Your task to perform on an android device: Clear all items from cart on bestbuy. Search for usb-a on bestbuy, select the first entry, add it to the cart, then select checkout. Image 0: 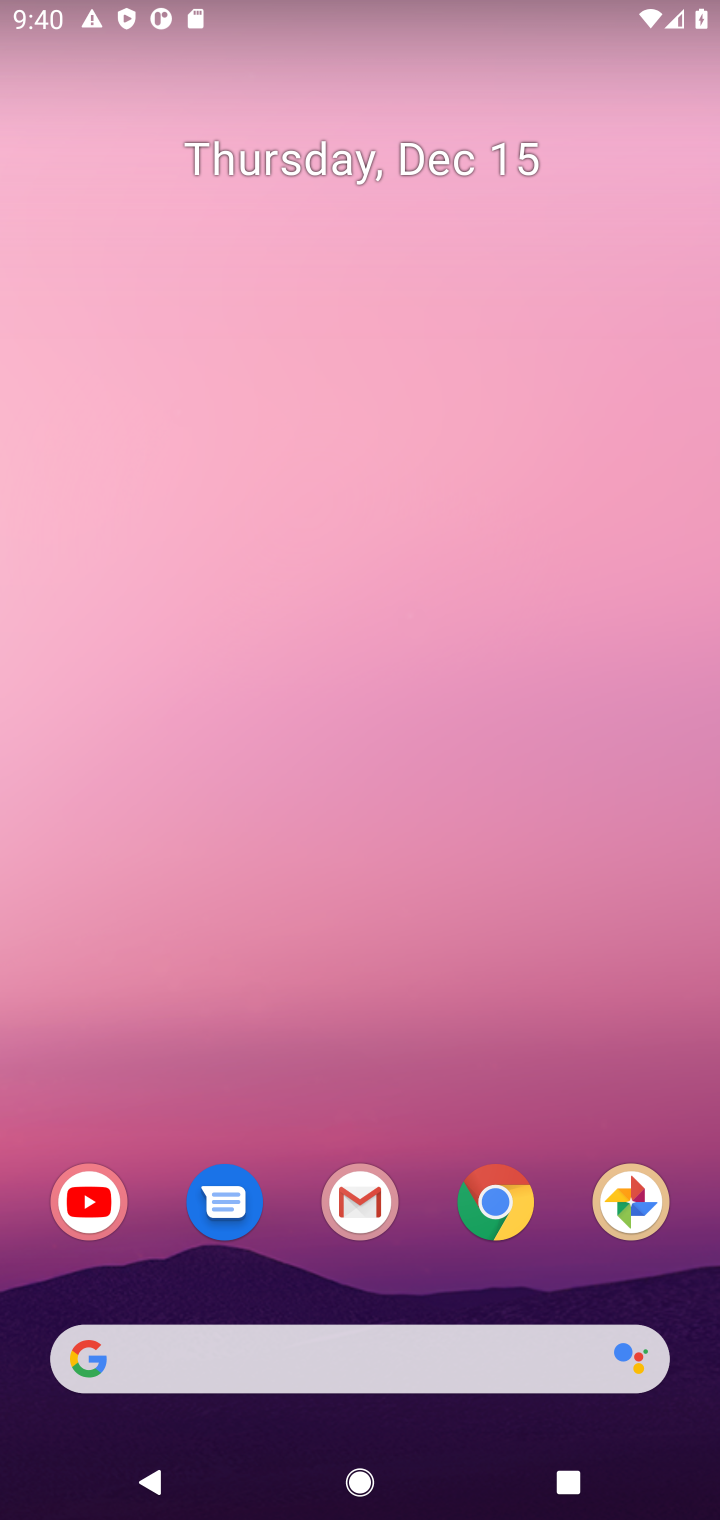
Step 0: click (497, 1207)
Your task to perform on an android device: Clear all items from cart on bestbuy. Search for usb-a on bestbuy, select the first entry, add it to the cart, then select checkout. Image 1: 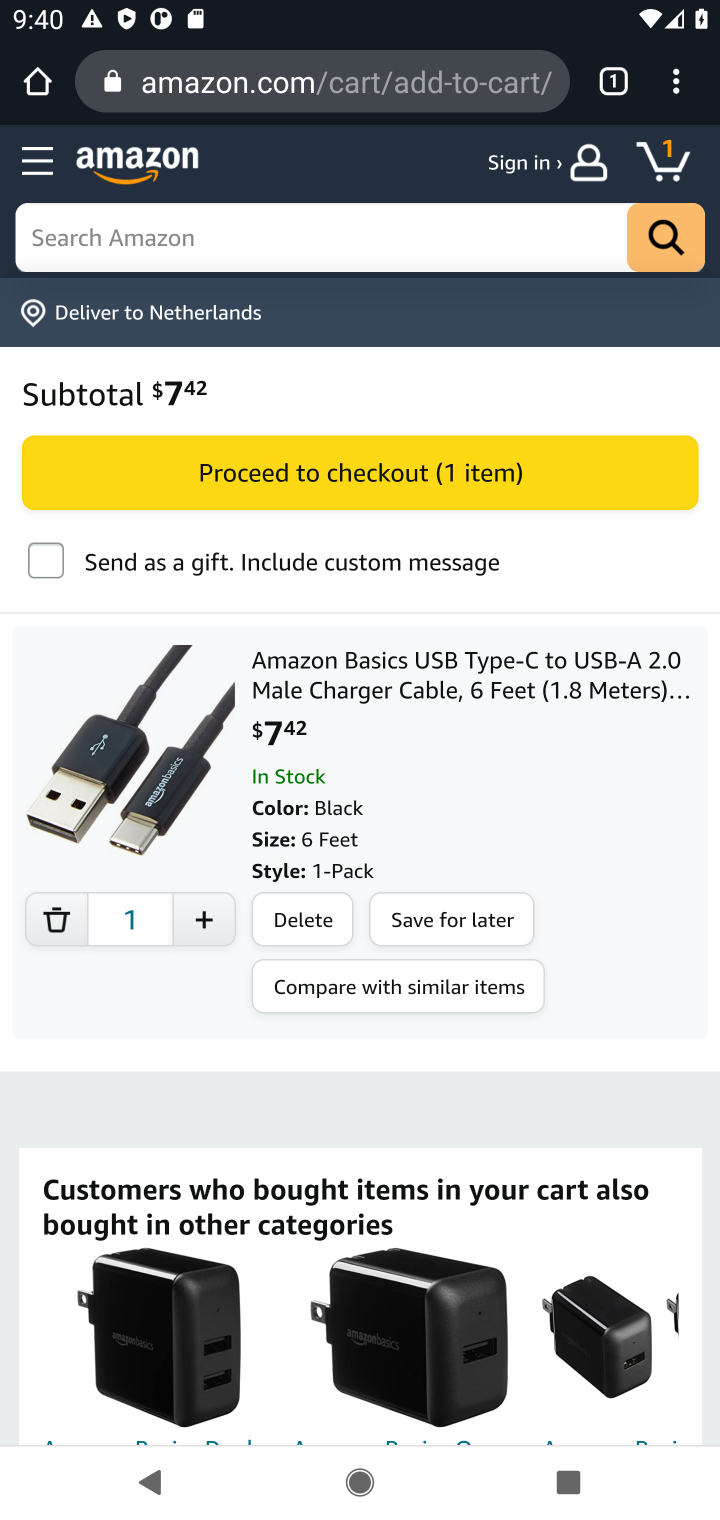
Step 1: click (270, 73)
Your task to perform on an android device: Clear all items from cart on bestbuy. Search for usb-a on bestbuy, select the first entry, add it to the cart, then select checkout. Image 2: 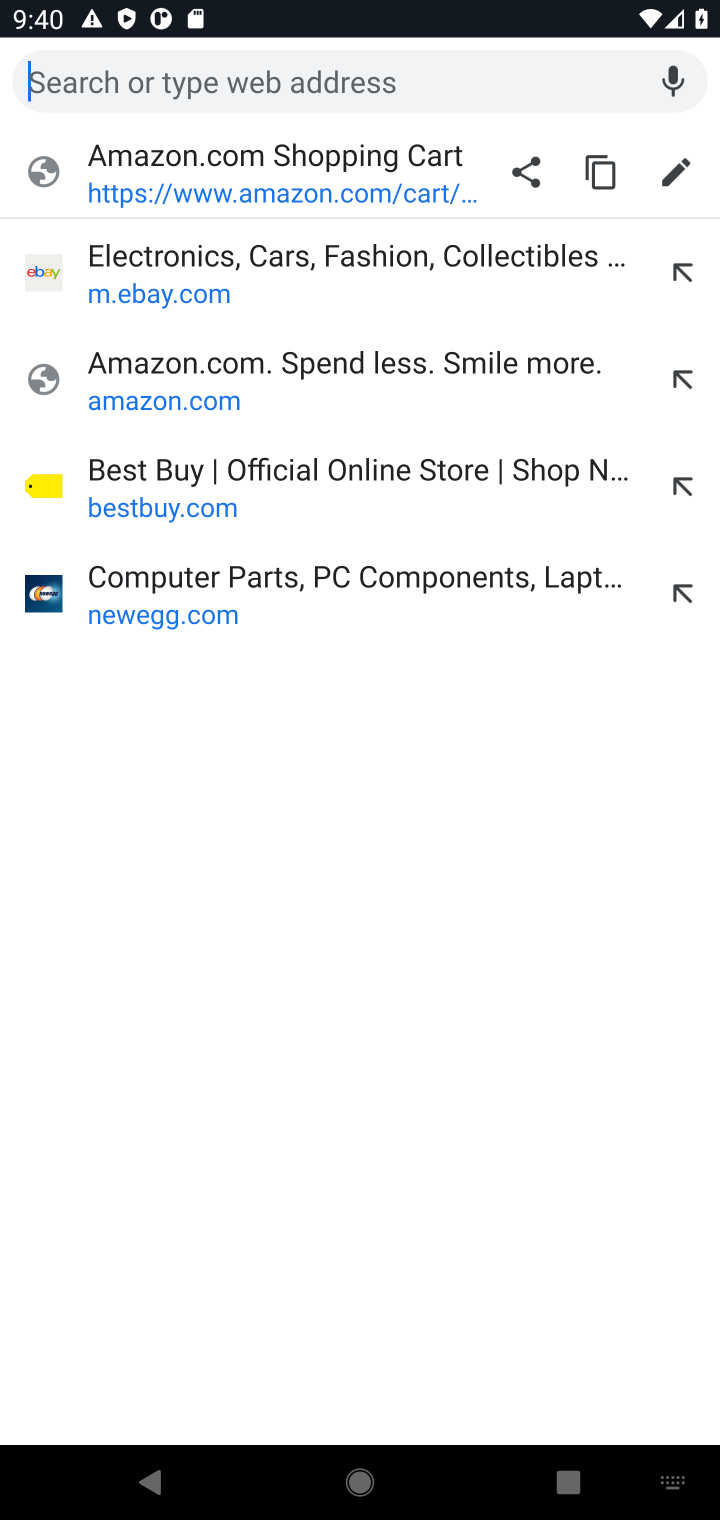
Step 2: click (136, 495)
Your task to perform on an android device: Clear all items from cart on bestbuy. Search for usb-a on bestbuy, select the first entry, add it to the cart, then select checkout. Image 3: 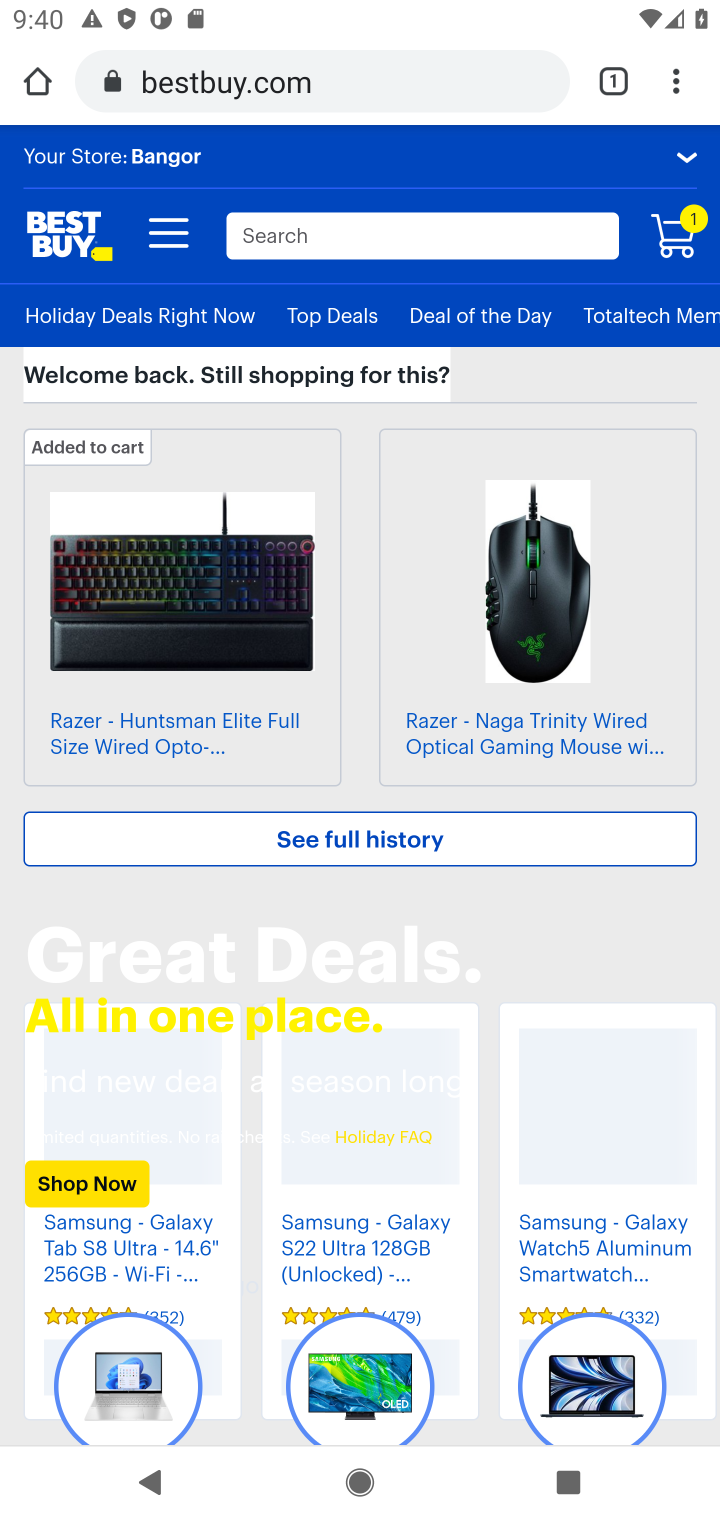
Step 3: click (680, 237)
Your task to perform on an android device: Clear all items from cart on bestbuy. Search for usb-a on bestbuy, select the first entry, add it to the cart, then select checkout. Image 4: 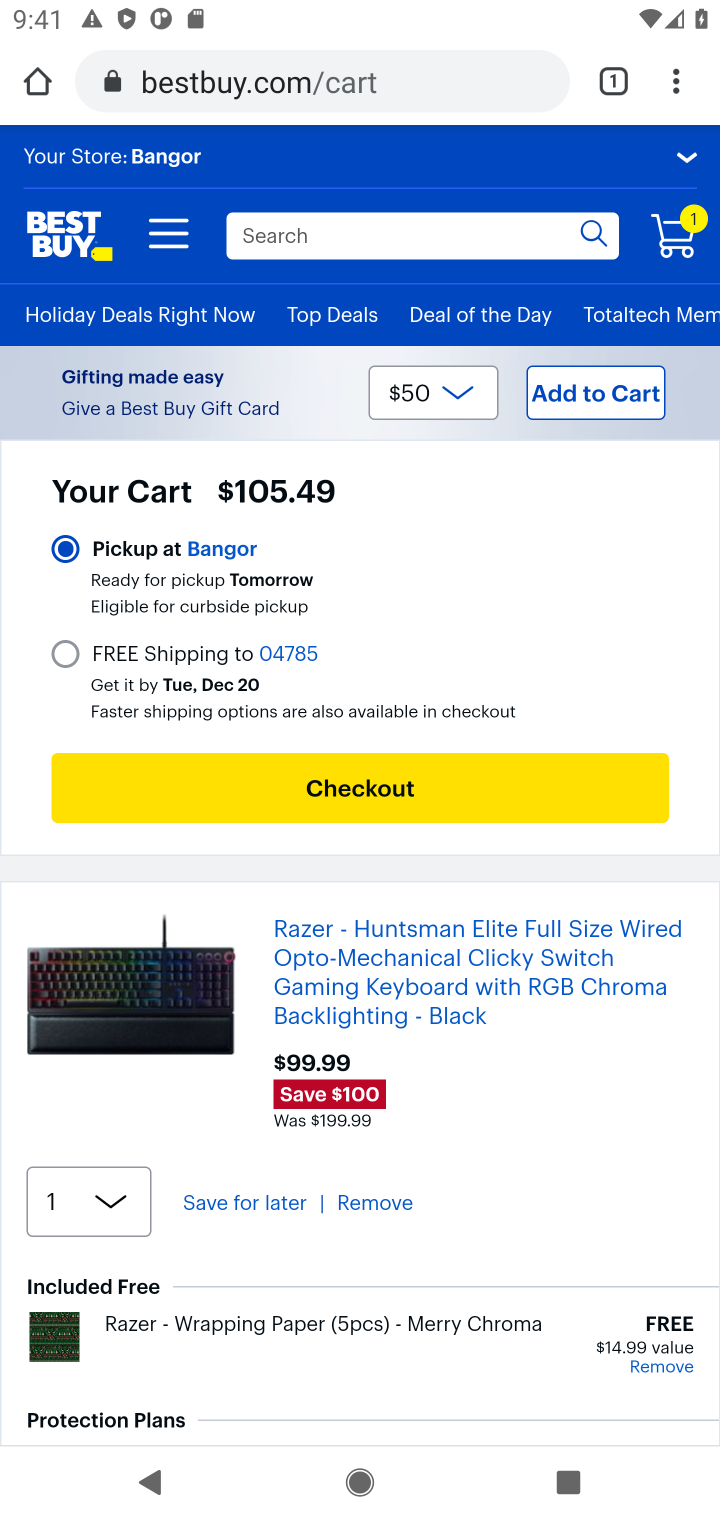
Step 4: click (387, 1200)
Your task to perform on an android device: Clear all items from cart on bestbuy. Search for usb-a on bestbuy, select the first entry, add it to the cart, then select checkout. Image 5: 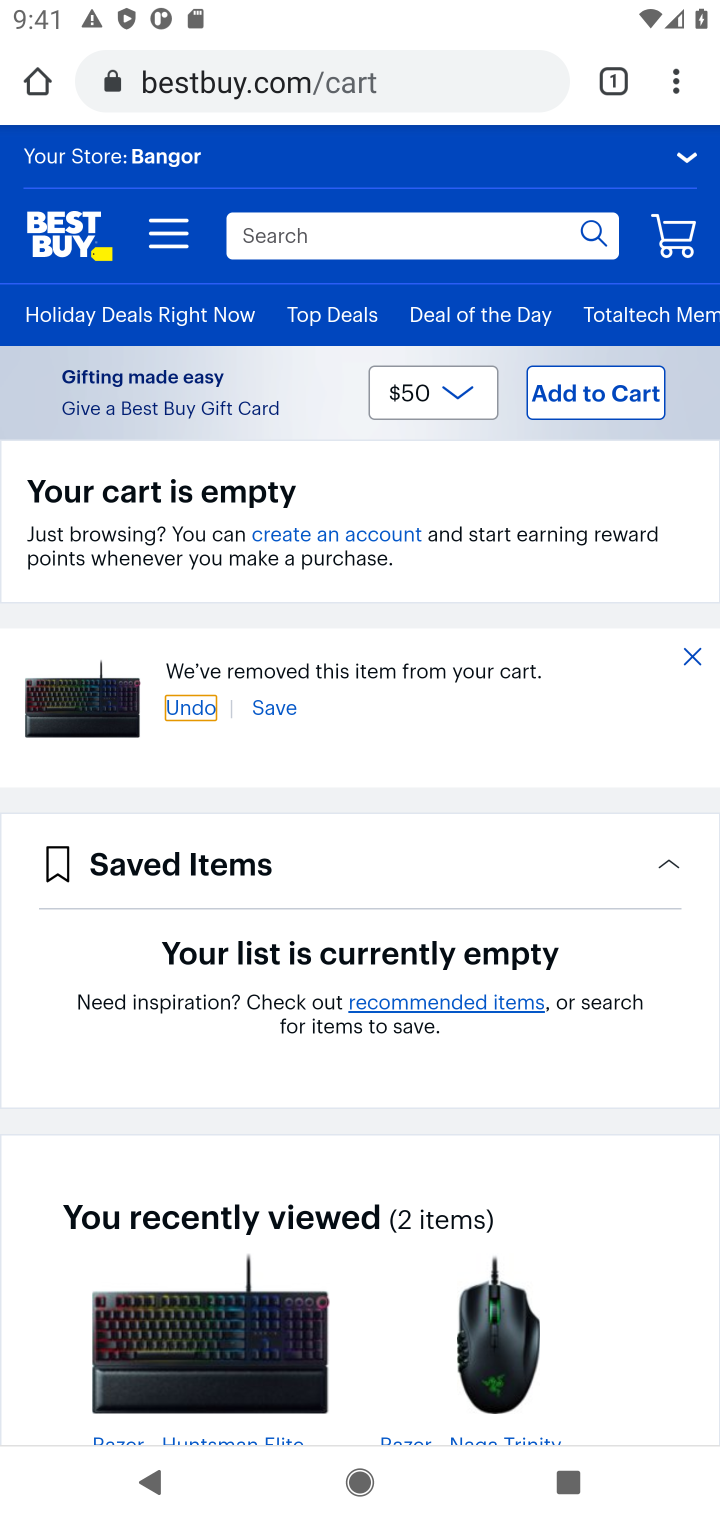
Step 5: click (325, 232)
Your task to perform on an android device: Clear all items from cart on bestbuy. Search for usb-a on bestbuy, select the first entry, add it to the cart, then select checkout. Image 6: 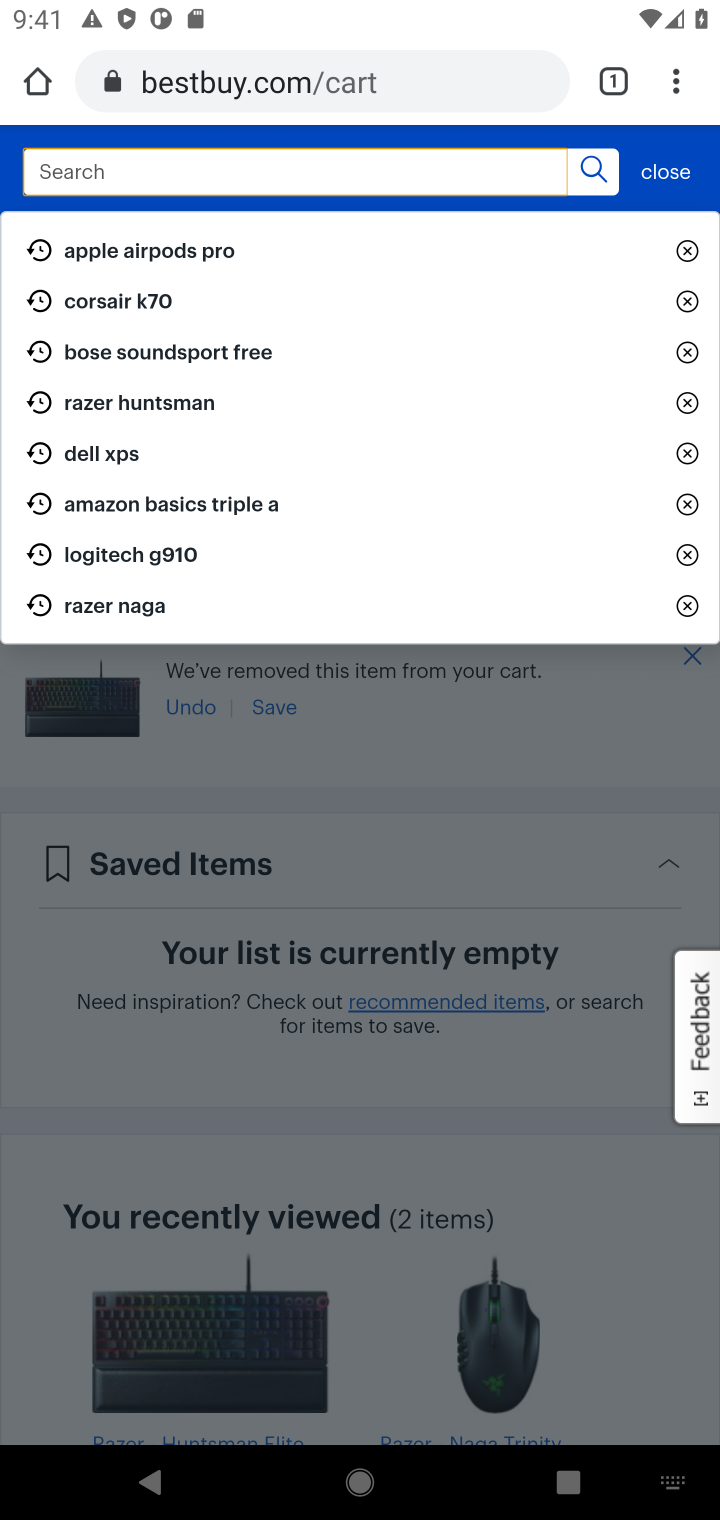
Step 6: type "usb-a"
Your task to perform on an android device: Clear all items from cart on bestbuy. Search for usb-a on bestbuy, select the first entry, add it to the cart, then select checkout. Image 7: 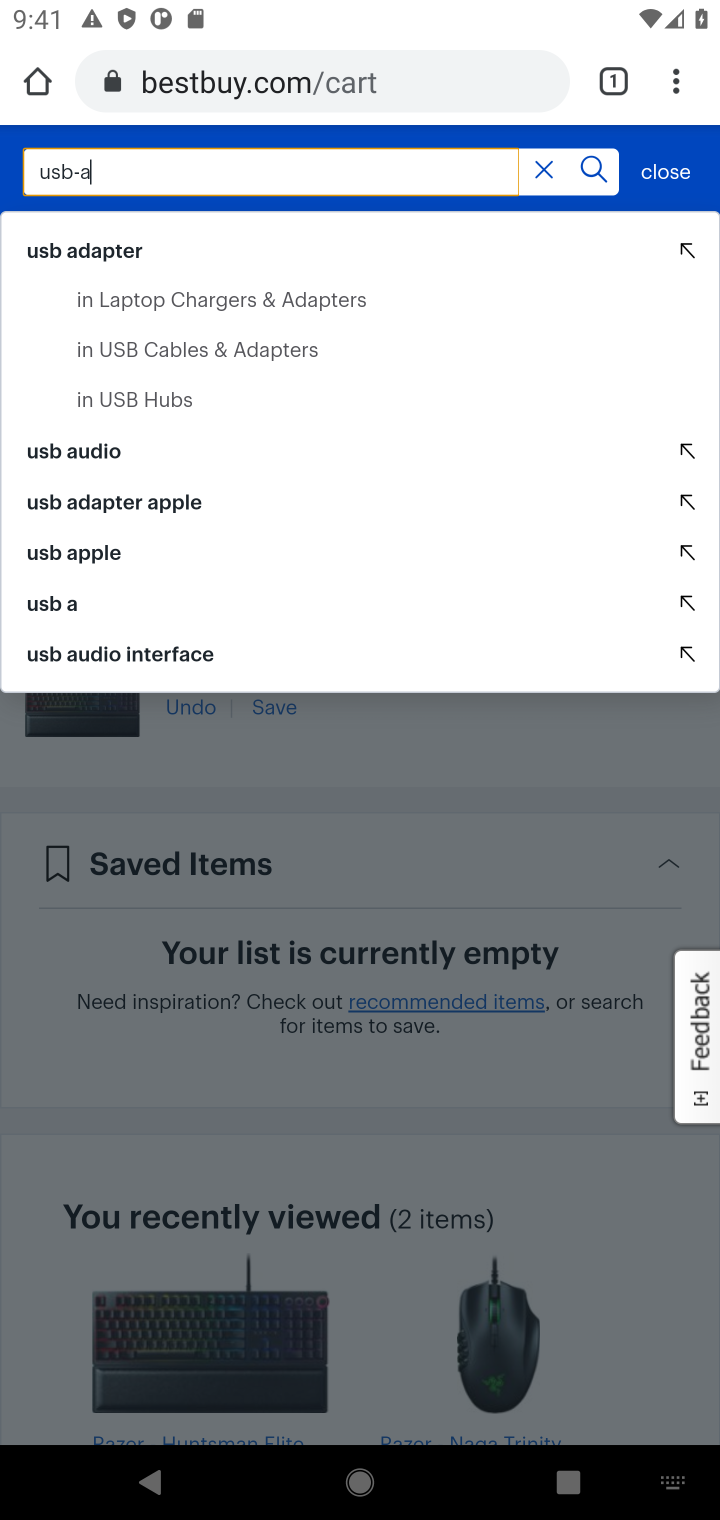
Step 7: click (53, 605)
Your task to perform on an android device: Clear all items from cart on bestbuy. Search for usb-a on bestbuy, select the first entry, add it to the cart, then select checkout. Image 8: 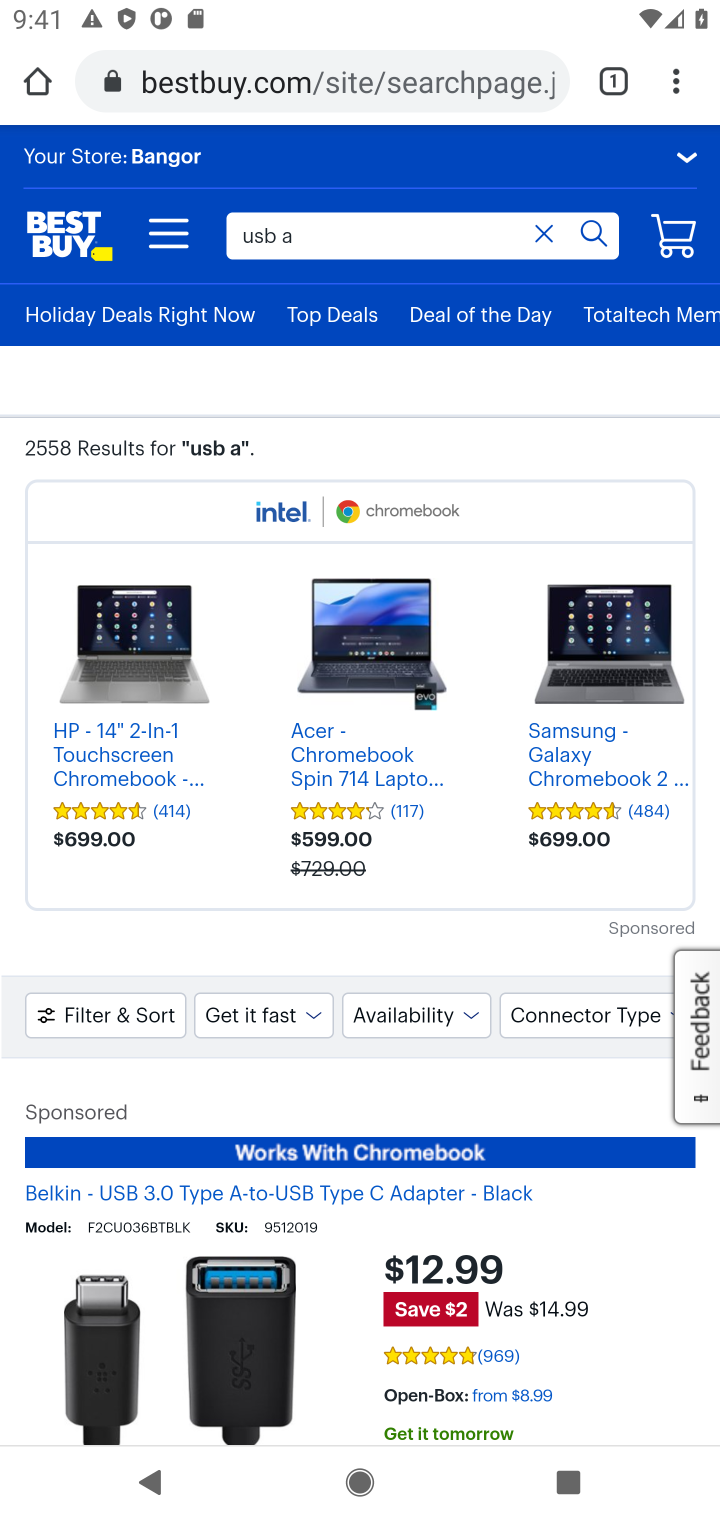
Step 8: drag from (297, 1252) to (325, 673)
Your task to perform on an android device: Clear all items from cart on bestbuy. Search for usb-a on bestbuy, select the first entry, add it to the cart, then select checkout. Image 9: 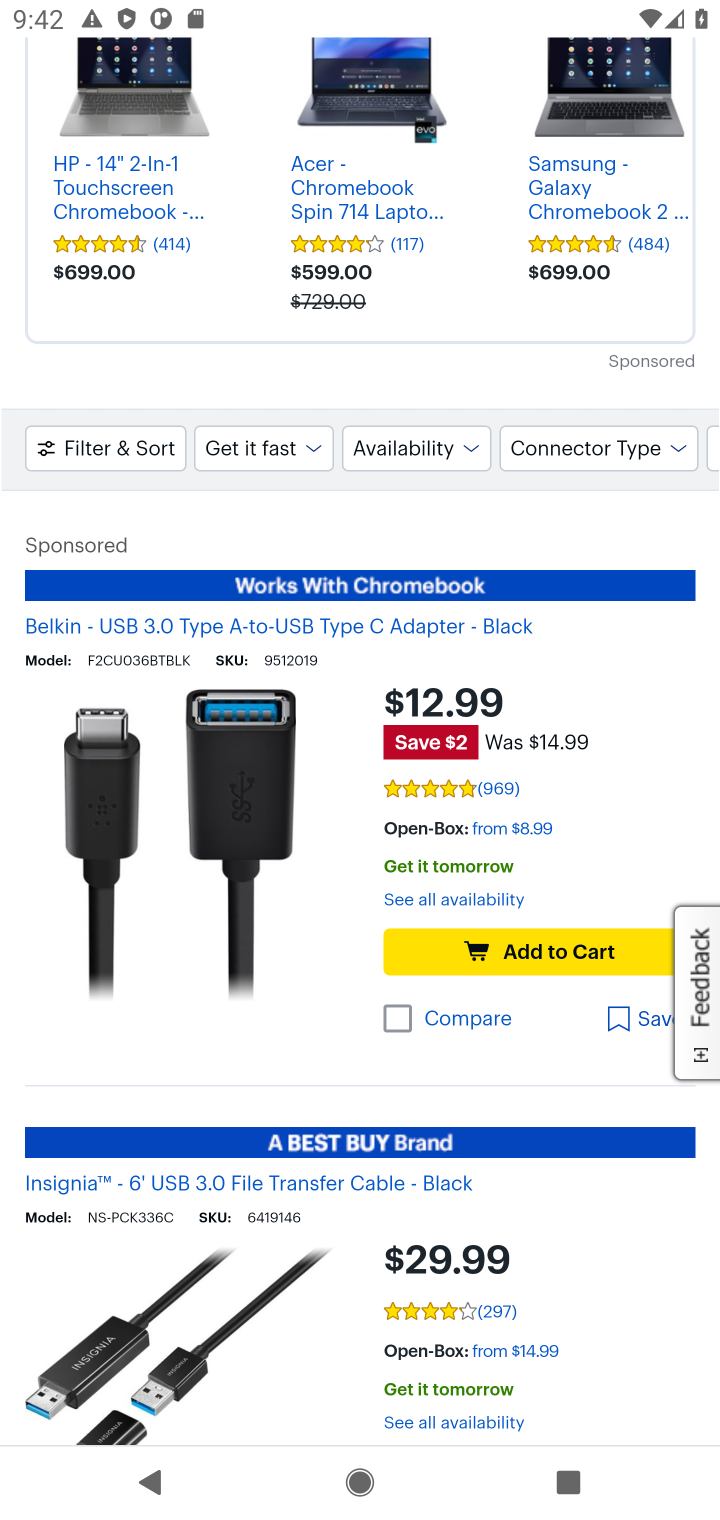
Step 9: click (461, 939)
Your task to perform on an android device: Clear all items from cart on bestbuy. Search for usb-a on bestbuy, select the first entry, add it to the cart, then select checkout. Image 10: 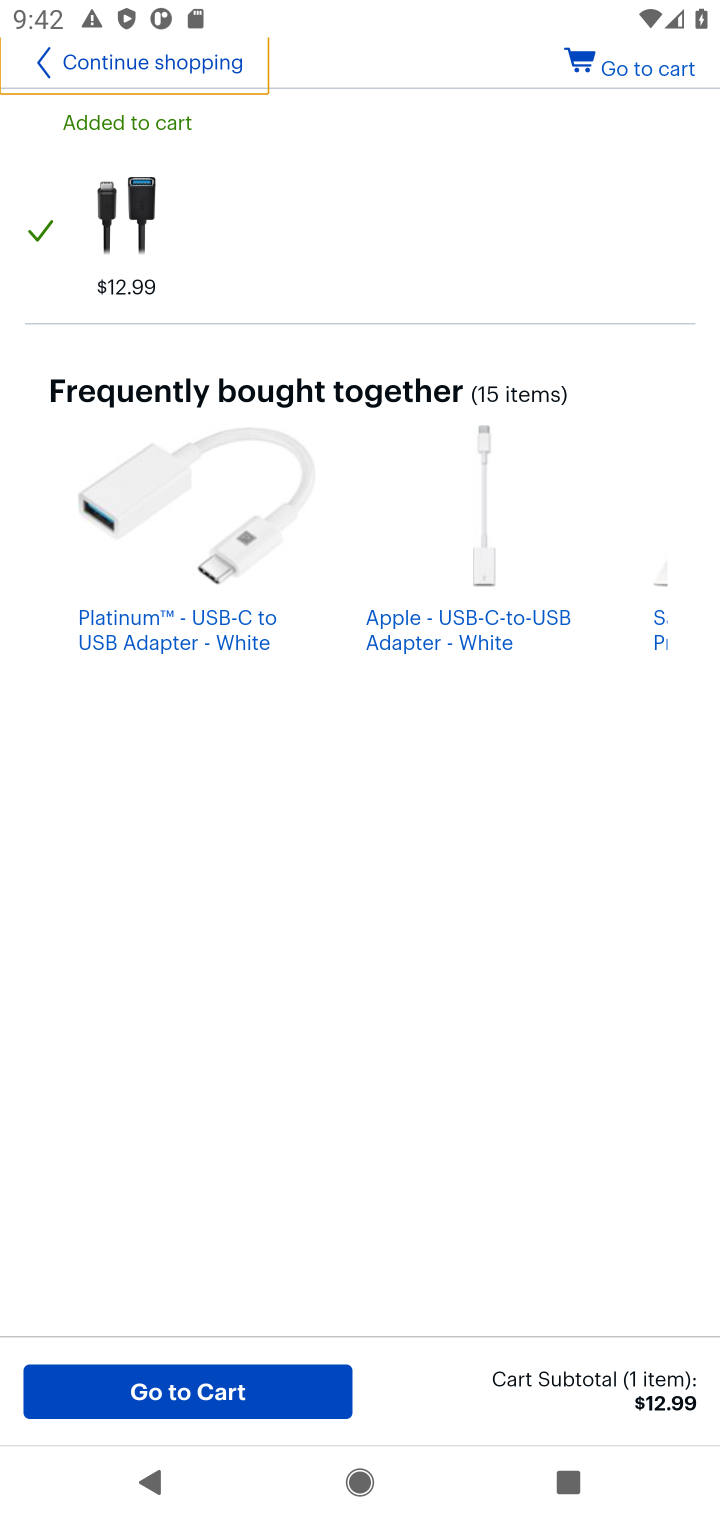
Step 10: click (615, 73)
Your task to perform on an android device: Clear all items from cart on bestbuy. Search for usb-a on bestbuy, select the first entry, add it to the cart, then select checkout. Image 11: 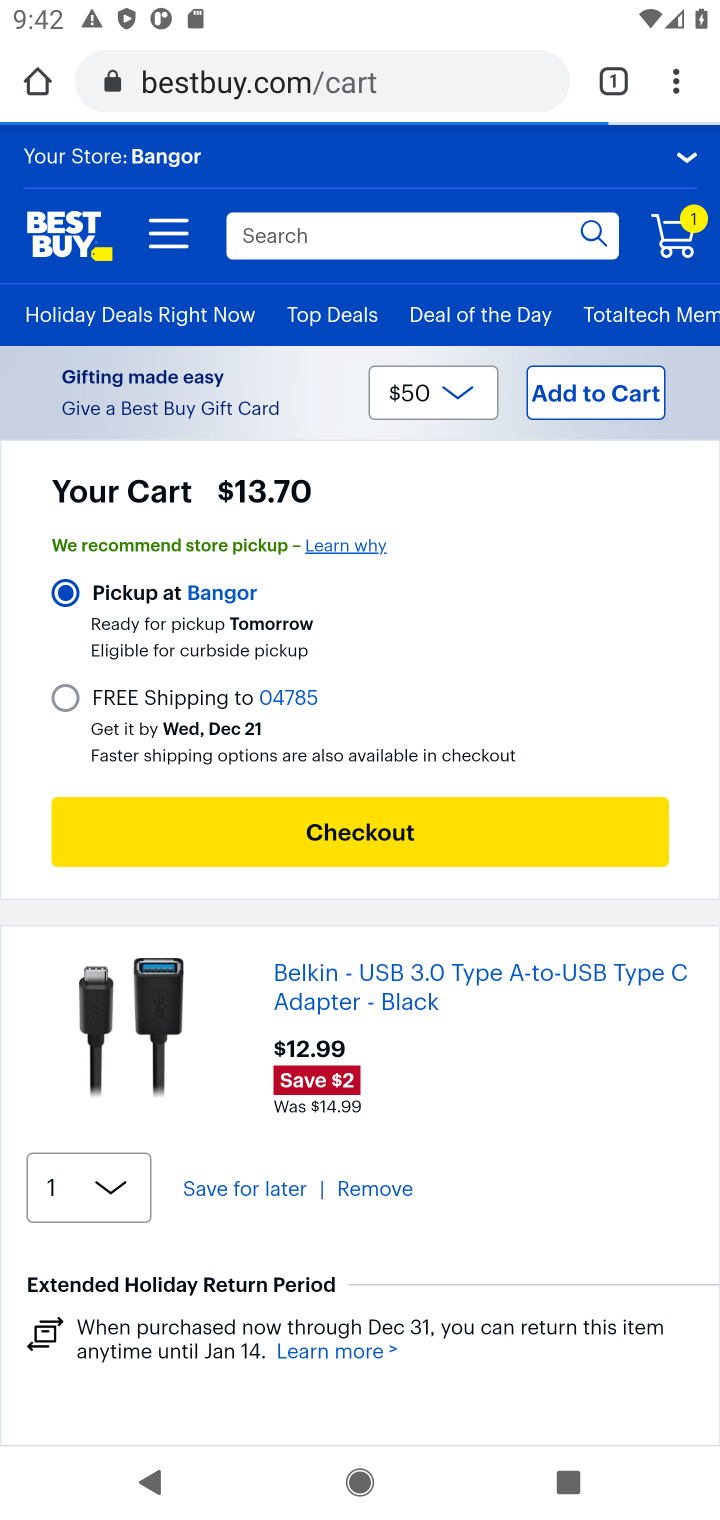
Step 11: click (271, 791)
Your task to perform on an android device: Clear all items from cart on bestbuy. Search for usb-a on bestbuy, select the first entry, add it to the cart, then select checkout. Image 12: 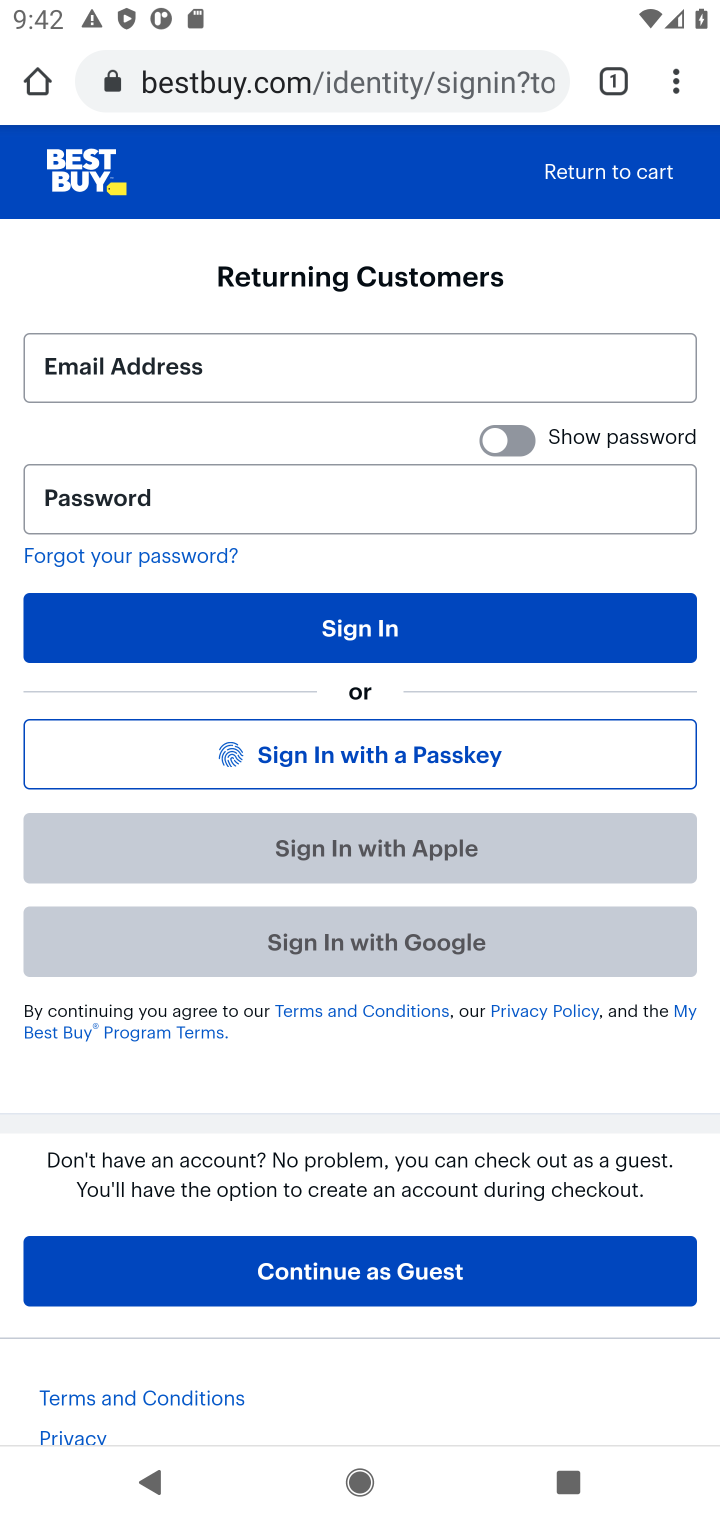
Step 12: task complete